Your task to perform on an android device: Is it going to rain this weekend? Image 0: 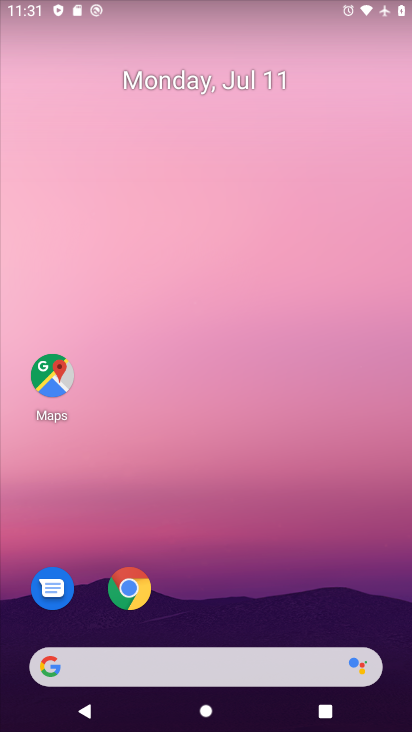
Step 0: click (155, 669)
Your task to perform on an android device: Is it going to rain this weekend? Image 1: 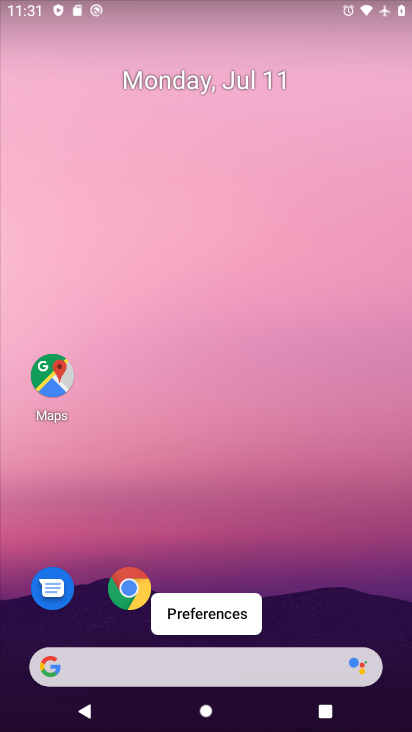
Step 1: click (157, 665)
Your task to perform on an android device: Is it going to rain this weekend? Image 2: 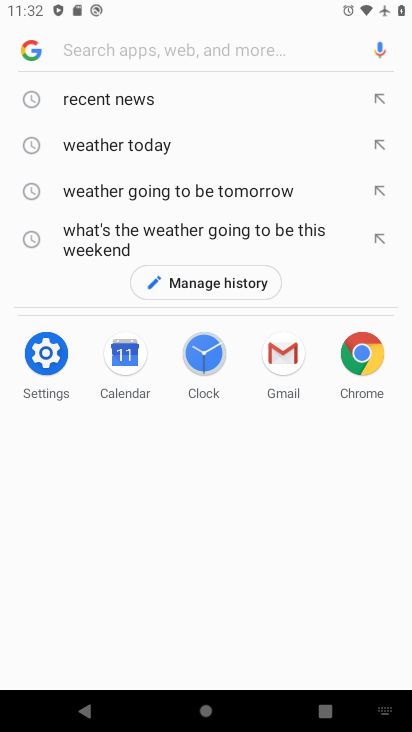
Step 2: type "Is it going to rain this weekend"
Your task to perform on an android device: Is it going to rain this weekend? Image 3: 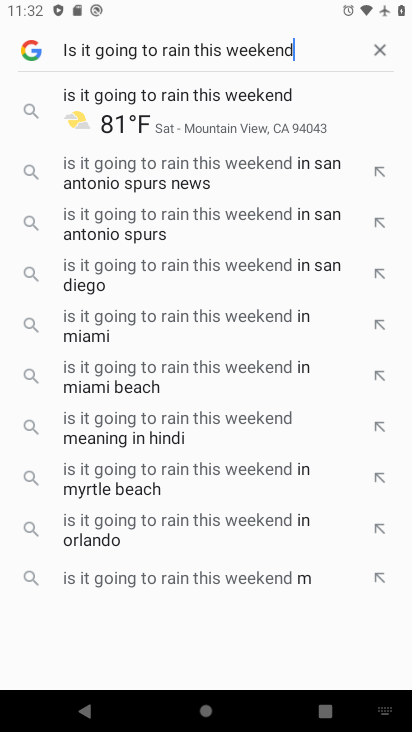
Step 3: click (217, 92)
Your task to perform on an android device: Is it going to rain this weekend? Image 4: 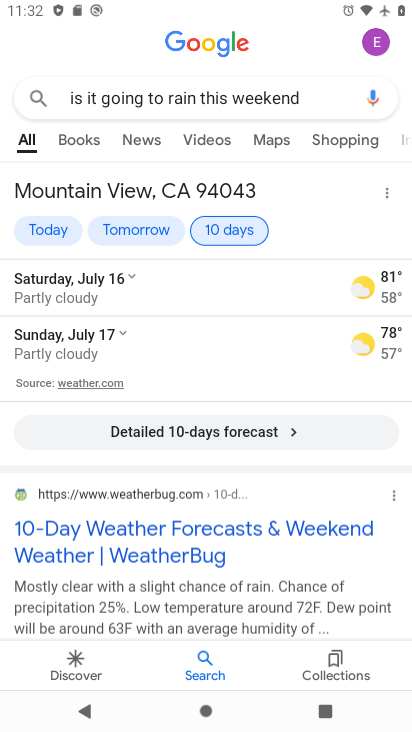
Step 4: task complete